Your task to perform on an android device: show emergency info Image 0: 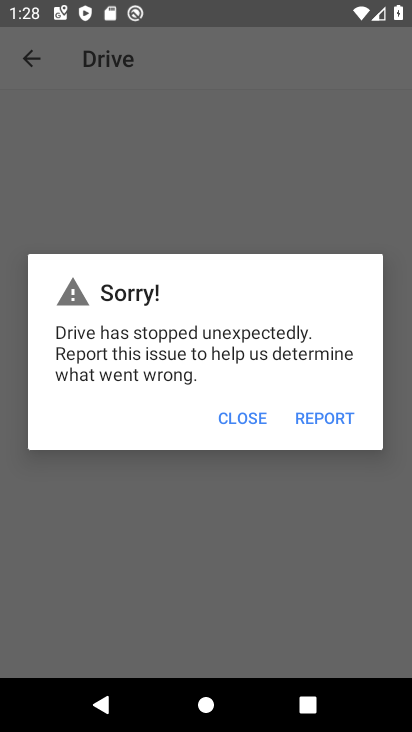
Step 0: press home button
Your task to perform on an android device: show emergency info Image 1: 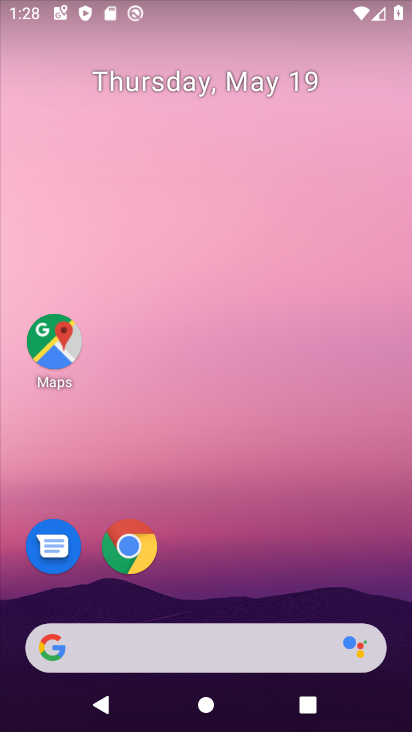
Step 1: drag from (177, 584) to (294, 28)
Your task to perform on an android device: show emergency info Image 2: 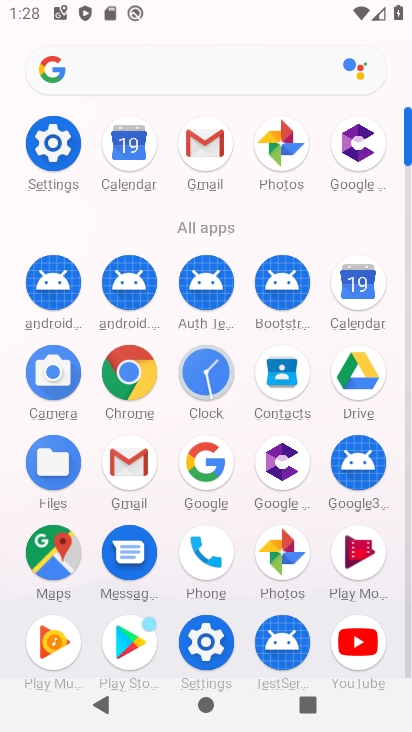
Step 2: click (54, 151)
Your task to perform on an android device: show emergency info Image 3: 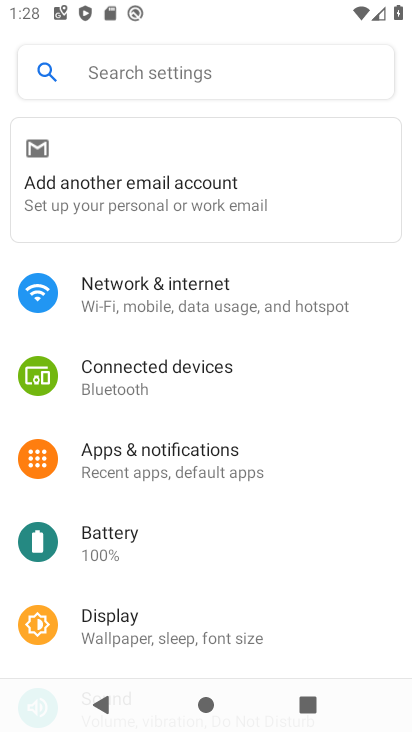
Step 3: drag from (213, 421) to (370, 122)
Your task to perform on an android device: show emergency info Image 4: 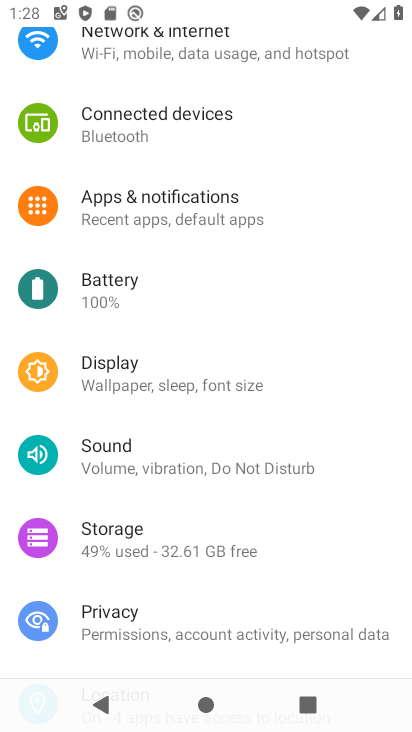
Step 4: drag from (226, 582) to (339, 224)
Your task to perform on an android device: show emergency info Image 5: 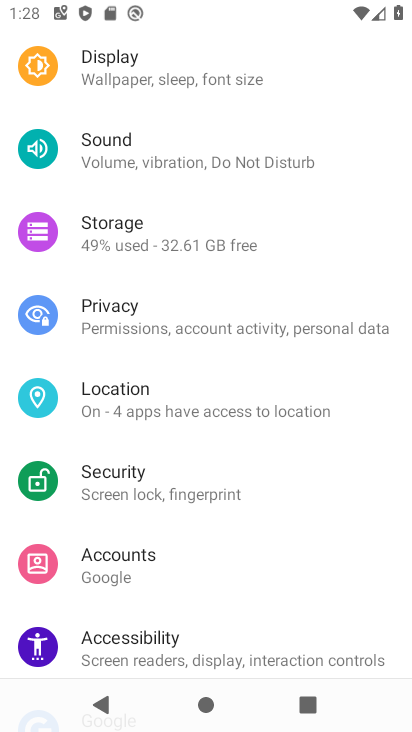
Step 5: drag from (169, 578) to (285, 274)
Your task to perform on an android device: show emergency info Image 6: 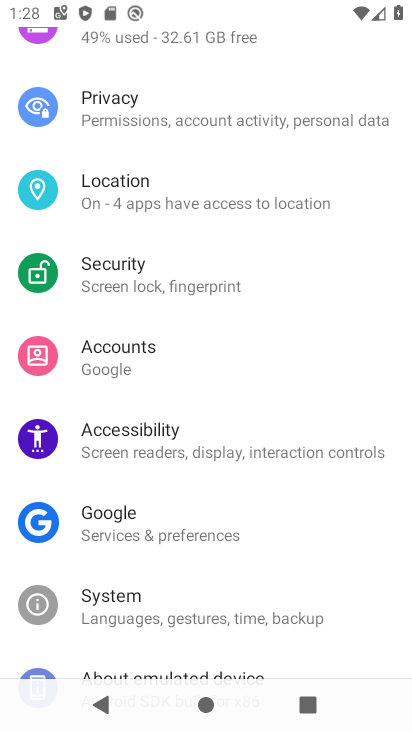
Step 6: drag from (169, 574) to (270, 185)
Your task to perform on an android device: show emergency info Image 7: 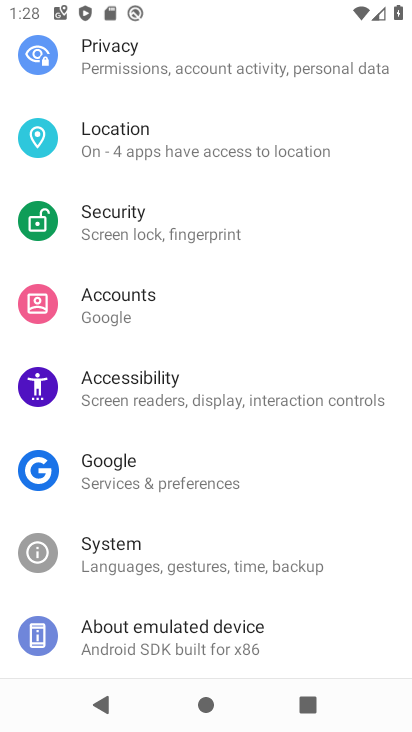
Step 7: click (141, 648)
Your task to perform on an android device: show emergency info Image 8: 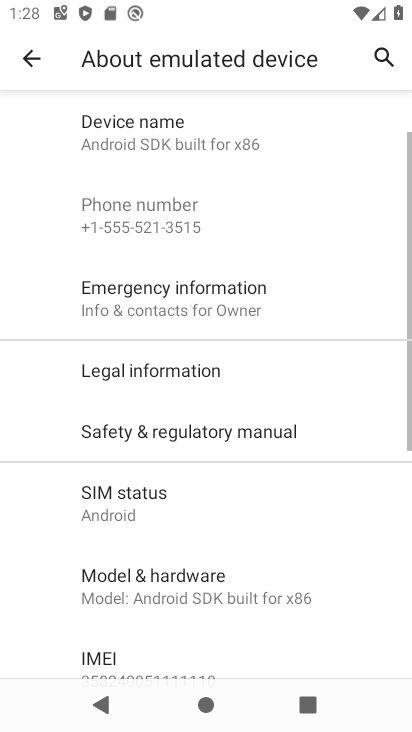
Step 8: click (203, 310)
Your task to perform on an android device: show emergency info Image 9: 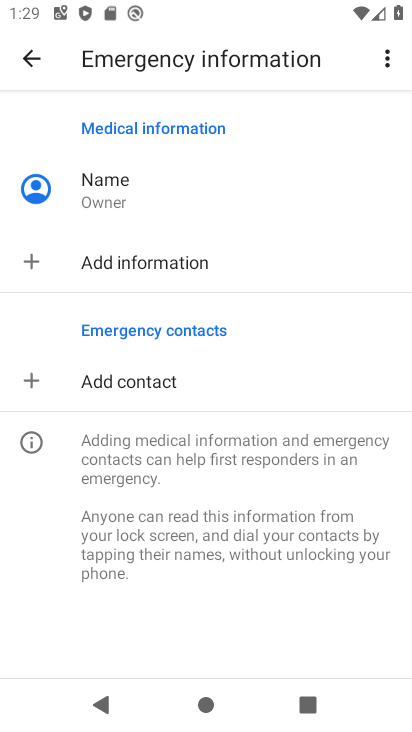
Step 9: task complete